Your task to perform on an android device: see sites visited before in the chrome app Image 0: 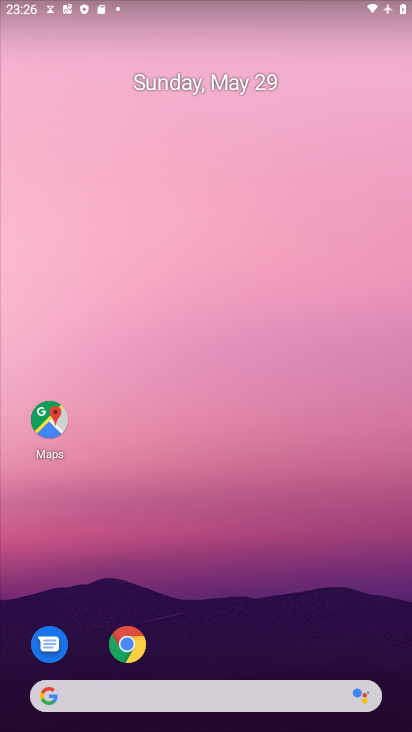
Step 0: drag from (226, 577) to (244, 256)
Your task to perform on an android device: see sites visited before in the chrome app Image 1: 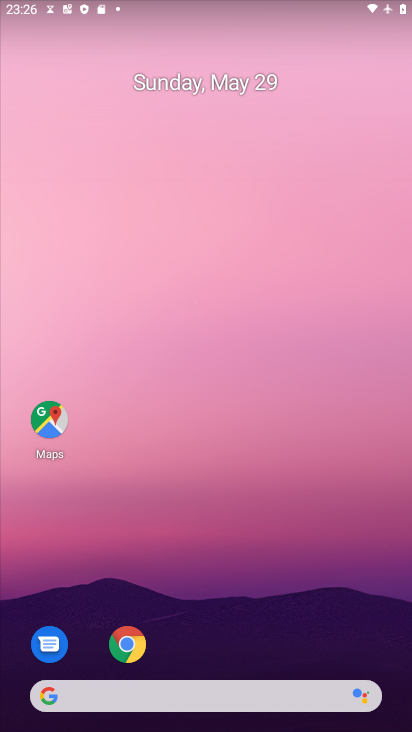
Step 1: drag from (211, 596) to (223, 143)
Your task to perform on an android device: see sites visited before in the chrome app Image 2: 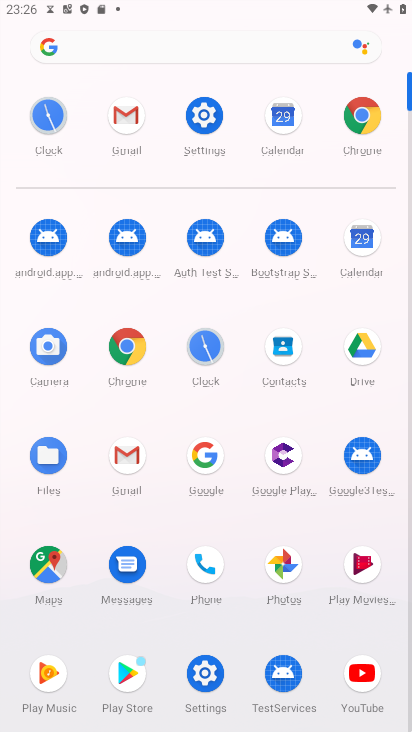
Step 2: click (128, 344)
Your task to perform on an android device: see sites visited before in the chrome app Image 3: 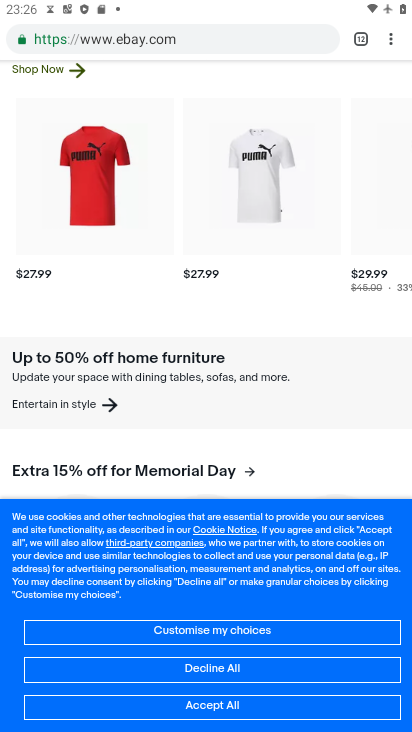
Step 3: click (398, 24)
Your task to perform on an android device: see sites visited before in the chrome app Image 4: 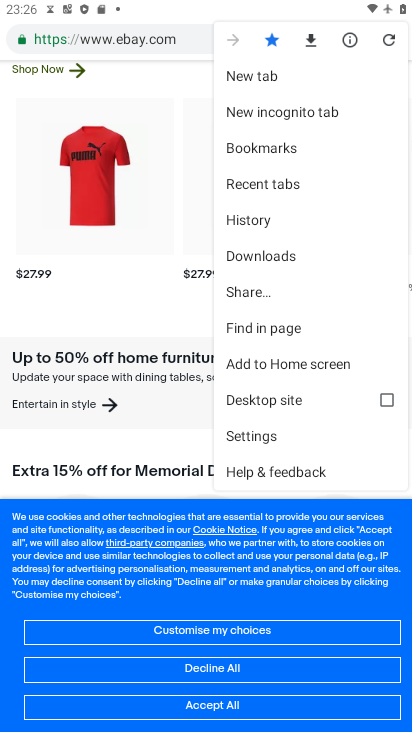
Step 4: click (259, 218)
Your task to perform on an android device: see sites visited before in the chrome app Image 5: 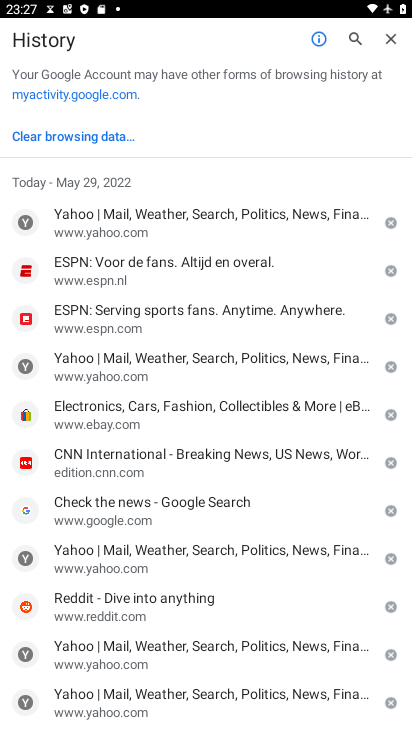
Step 5: task complete